Your task to perform on an android device: Go to Wikipedia Image 0: 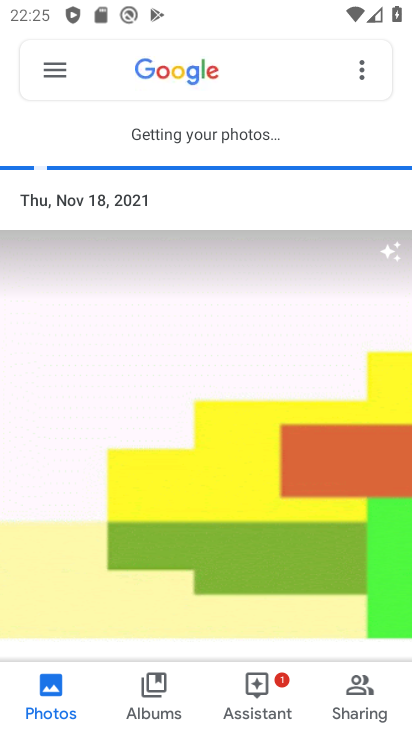
Step 0: press home button
Your task to perform on an android device: Go to Wikipedia Image 1: 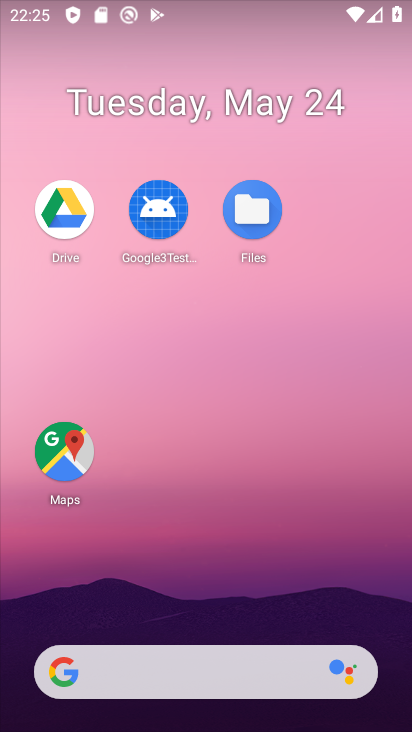
Step 1: drag from (181, 628) to (216, 132)
Your task to perform on an android device: Go to Wikipedia Image 2: 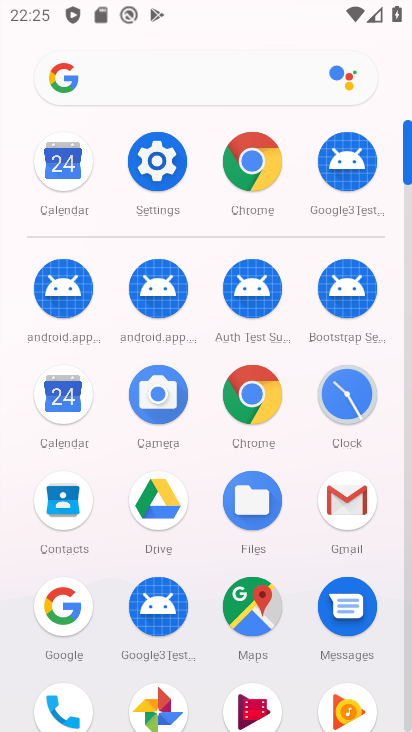
Step 2: click (256, 397)
Your task to perform on an android device: Go to Wikipedia Image 3: 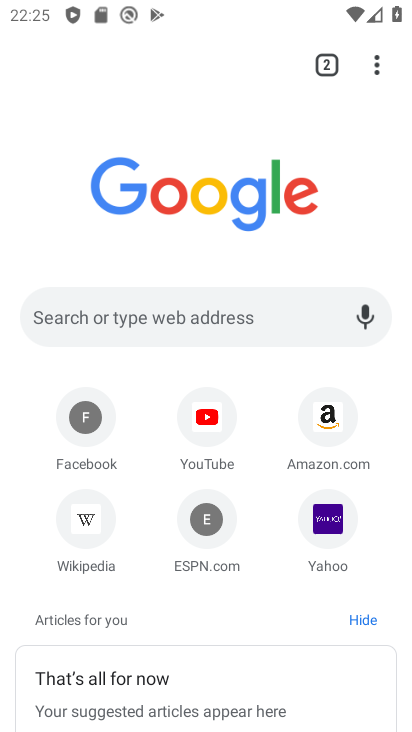
Step 3: click (85, 515)
Your task to perform on an android device: Go to Wikipedia Image 4: 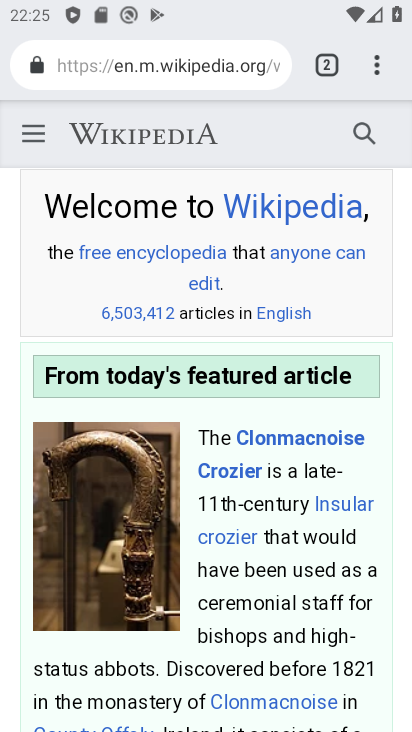
Step 4: task complete